Your task to perform on an android device: turn off picture-in-picture Image 0: 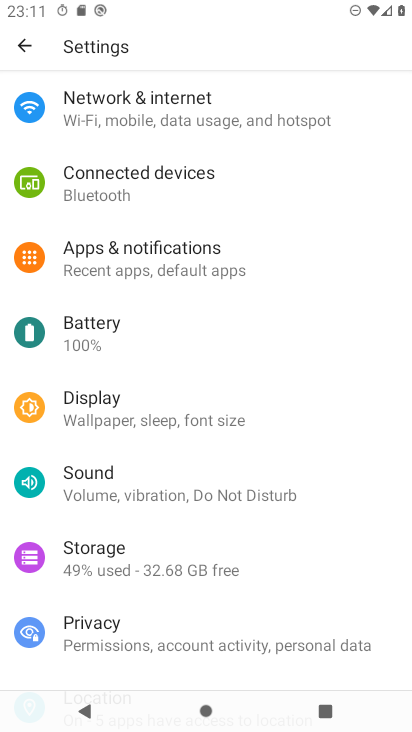
Step 0: drag from (309, 472) to (329, 347)
Your task to perform on an android device: turn off picture-in-picture Image 1: 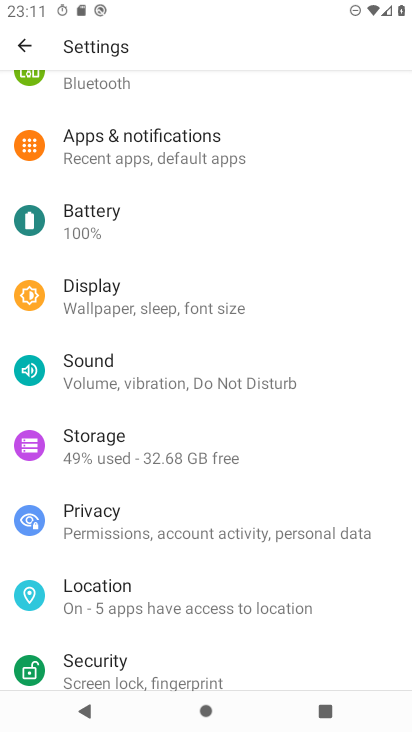
Step 1: drag from (332, 462) to (346, 369)
Your task to perform on an android device: turn off picture-in-picture Image 2: 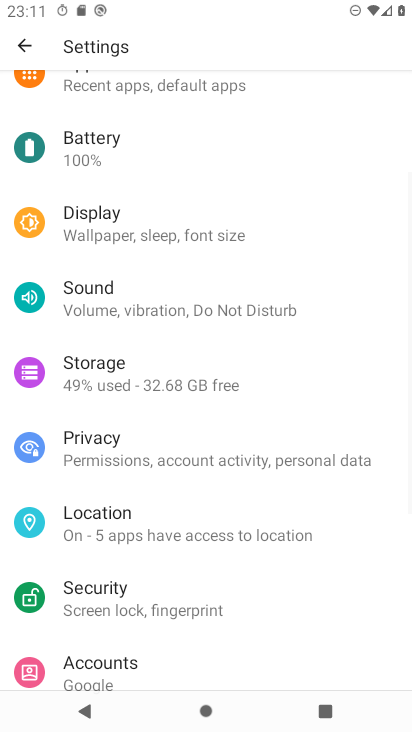
Step 2: drag from (351, 550) to (359, 438)
Your task to perform on an android device: turn off picture-in-picture Image 3: 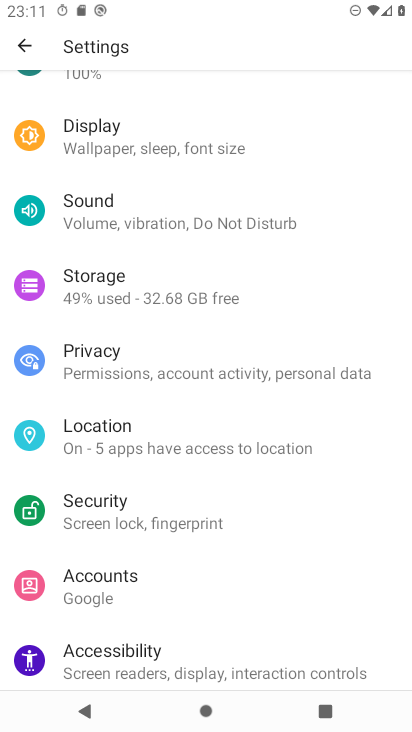
Step 3: drag from (346, 547) to (374, 332)
Your task to perform on an android device: turn off picture-in-picture Image 4: 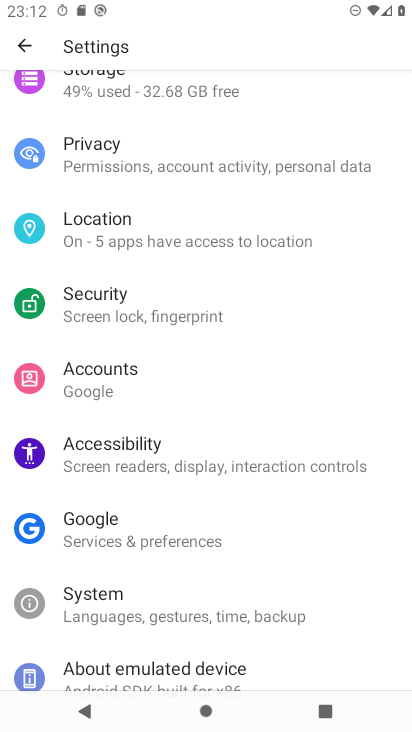
Step 4: drag from (350, 411) to (366, 219)
Your task to perform on an android device: turn off picture-in-picture Image 5: 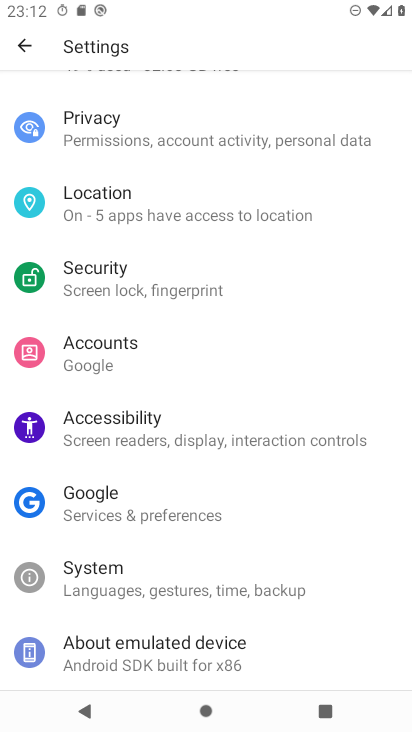
Step 5: drag from (366, 208) to (355, 324)
Your task to perform on an android device: turn off picture-in-picture Image 6: 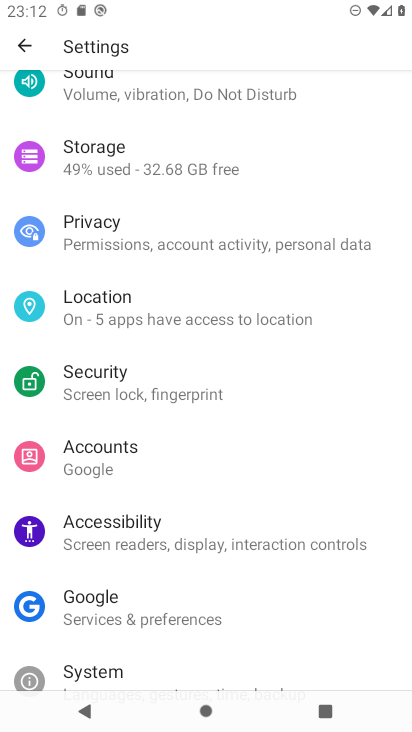
Step 6: drag from (356, 224) to (357, 320)
Your task to perform on an android device: turn off picture-in-picture Image 7: 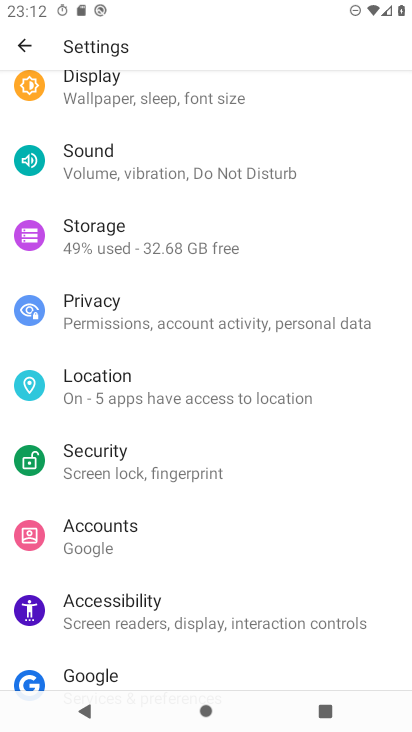
Step 7: drag from (359, 202) to (350, 311)
Your task to perform on an android device: turn off picture-in-picture Image 8: 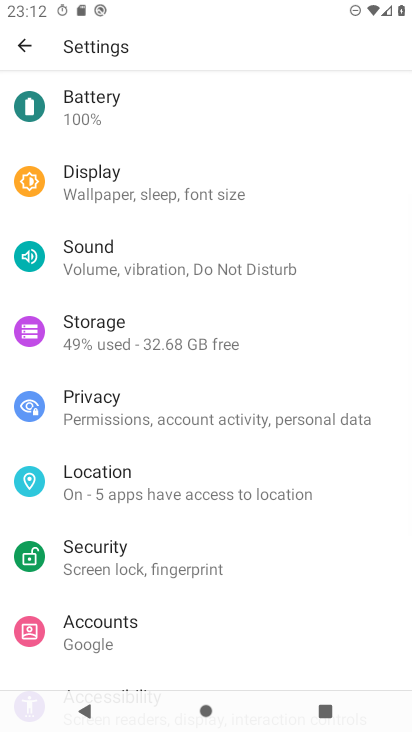
Step 8: drag from (350, 214) to (344, 316)
Your task to perform on an android device: turn off picture-in-picture Image 9: 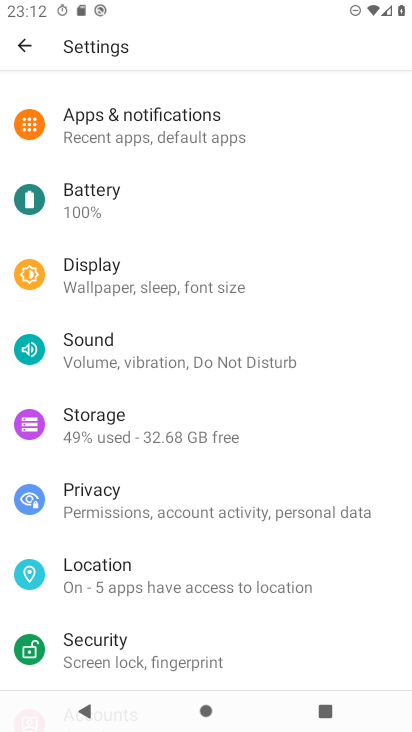
Step 9: drag from (320, 201) to (326, 346)
Your task to perform on an android device: turn off picture-in-picture Image 10: 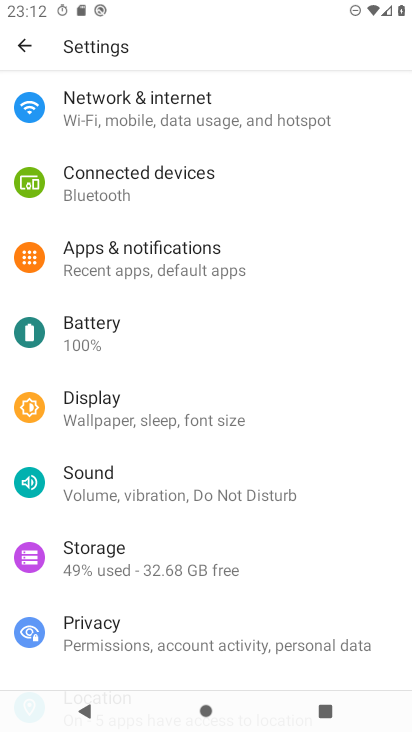
Step 10: click (234, 266)
Your task to perform on an android device: turn off picture-in-picture Image 11: 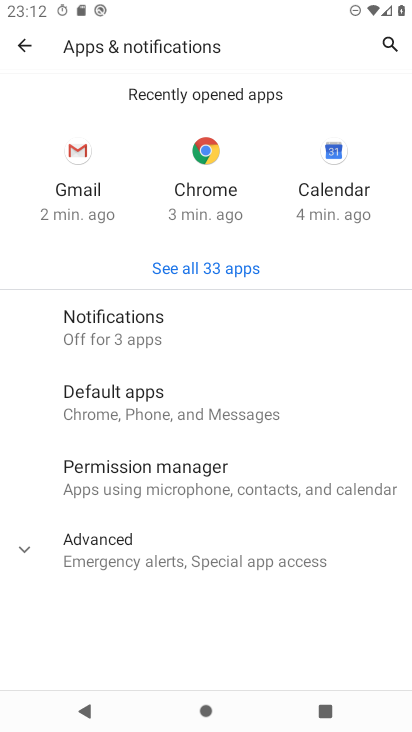
Step 11: click (238, 544)
Your task to perform on an android device: turn off picture-in-picture Image 12: 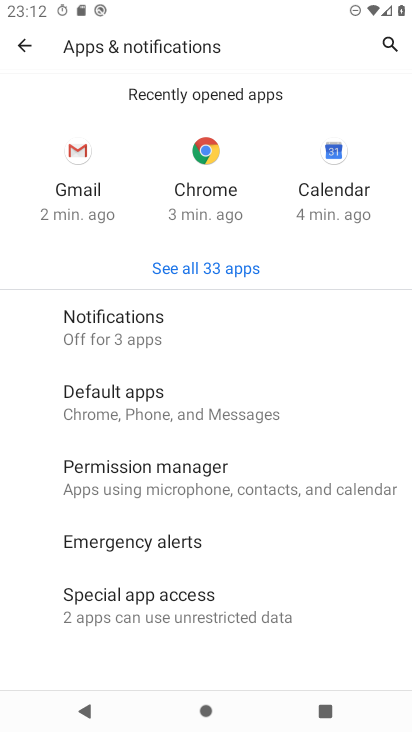
Step 12: click (290, 617)
Your task to perform on an android device: turn off picture-in-picture Image 13: 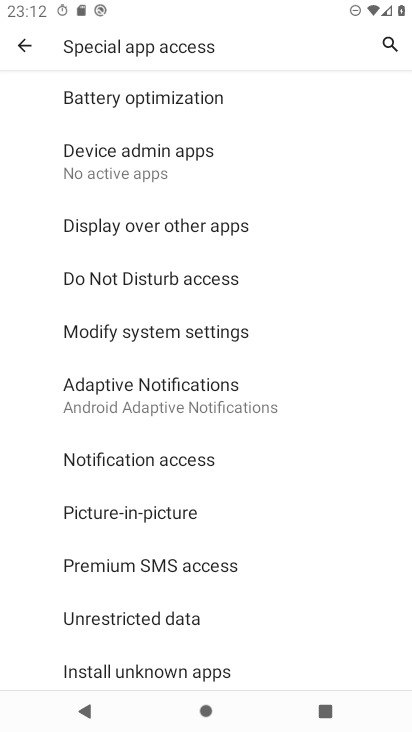
Step 13: drag from (330, 544) to (362, 332)
Your task to perform on an android device: turn off picture-in-picture Image 14: 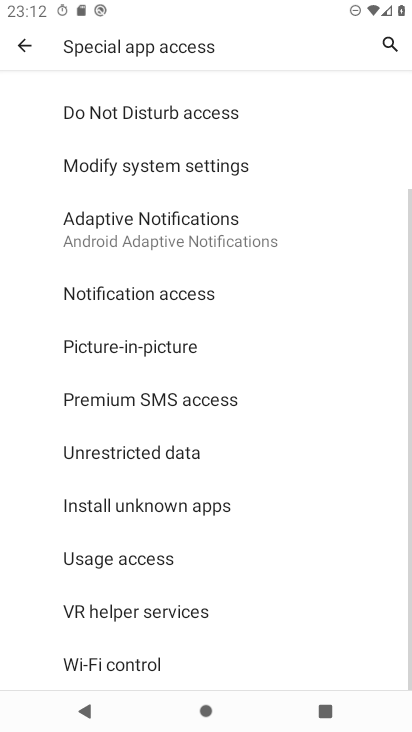
Step 14: click (283, 352)
Your task to perform on an android device: turn off picture-in-picture Image 15: 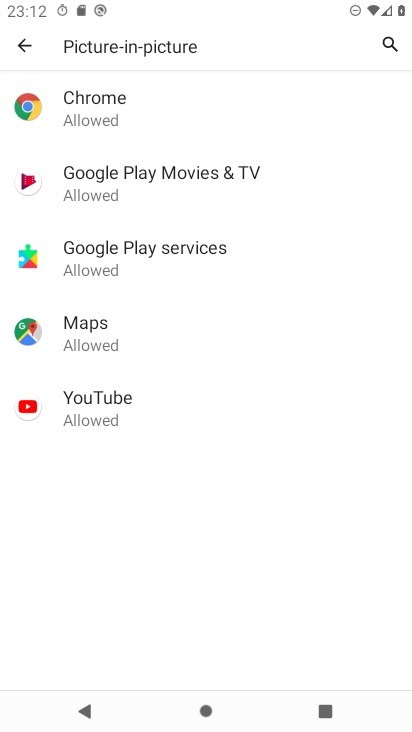
Step 15: click (242, 419)
Your task to perform on an android device: turn off picture-in-picture Image 16: 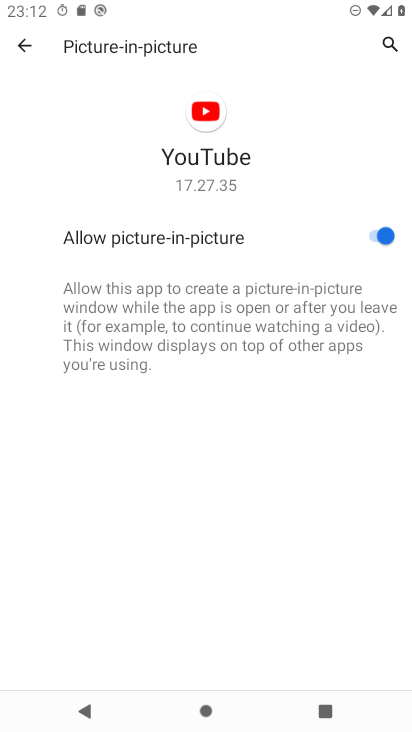
Step 16: click (386, 237)
Your task to perform on an android device: turn off picture-in-picture Image 17: 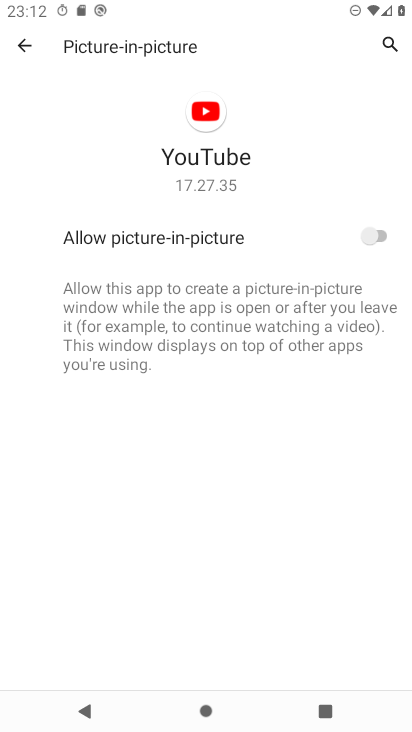
Step 17: task complete